Your task to perform on an android device: uninstall "Life360: Find Family & Friends" Image 0: 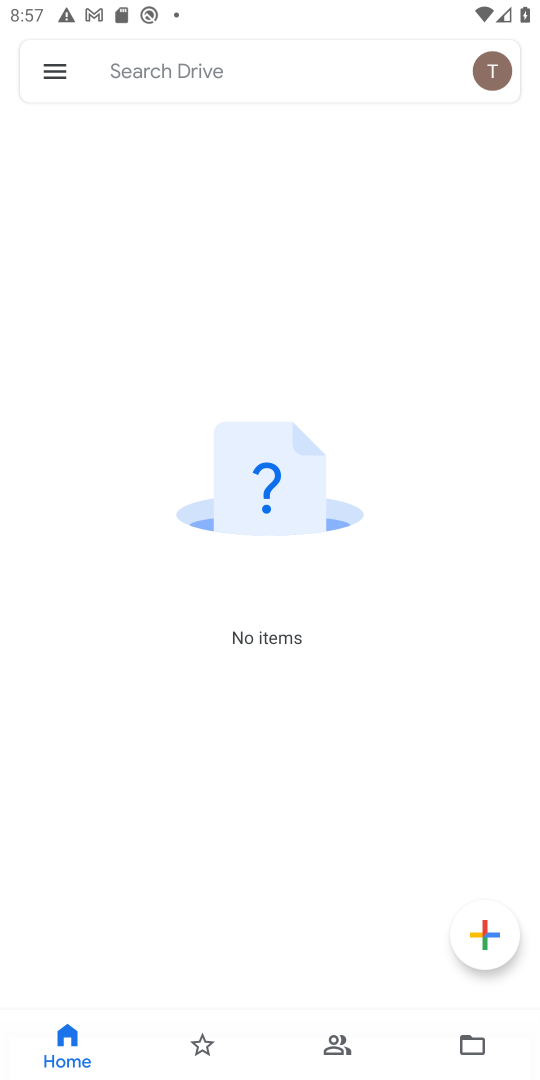
Step 0: press home button
Your task to perform on an android device: uninstall "Life360: Find Family & Friends" Image 1: 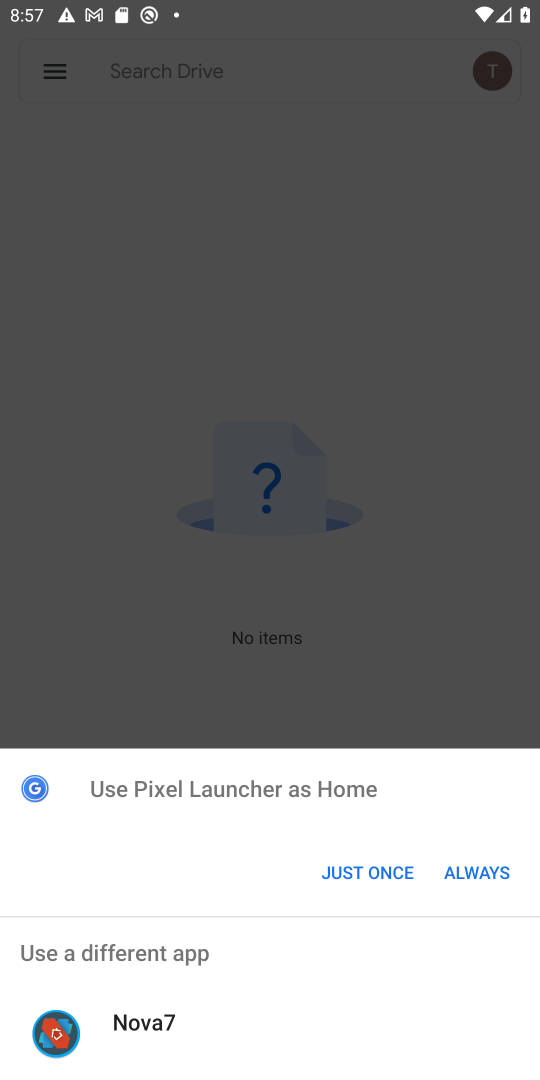
Step 1: click (488, 873)
Your task to perform on an android device: uninstall "Life360: Find Family & Friends" Image 2: 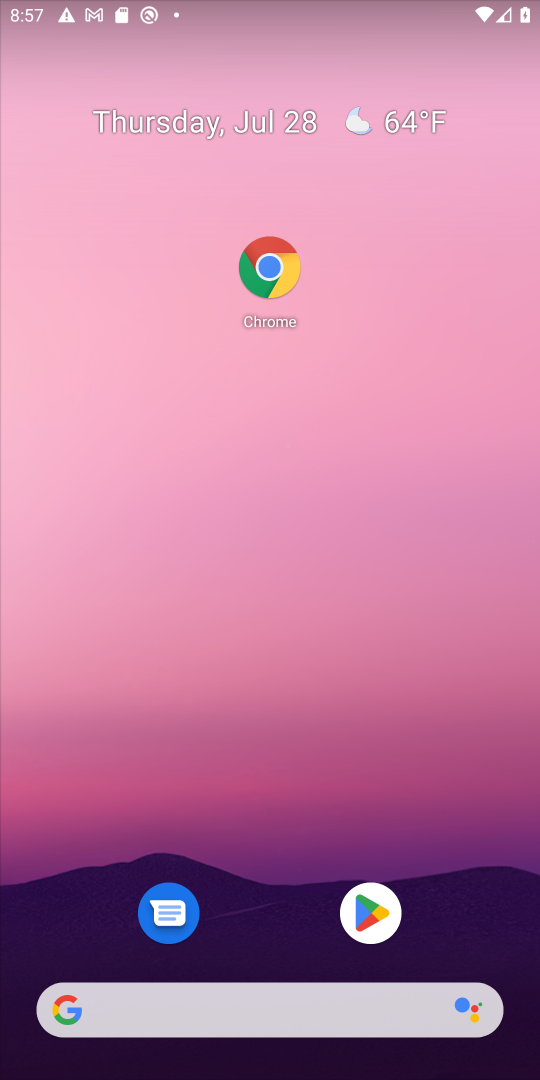
Step 2: click (372, 893)
Your task to perform on an android device: uninstall "Life360: Find Family & Friends" Image 3: 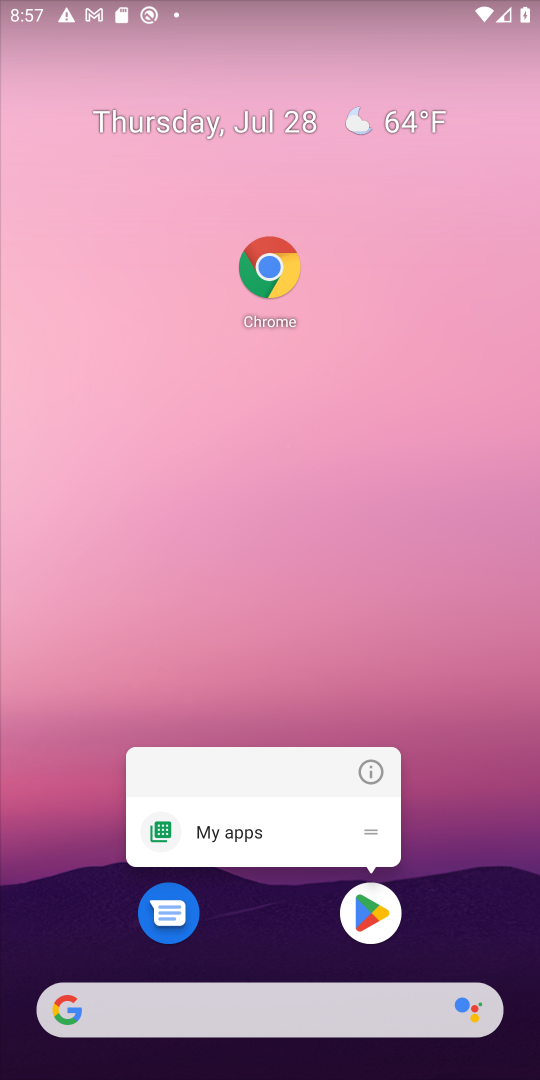
Step 3: click (388, 909)
Your task to perform on an android device: uninstall "Life360: Find Family & Friends" Image 4: 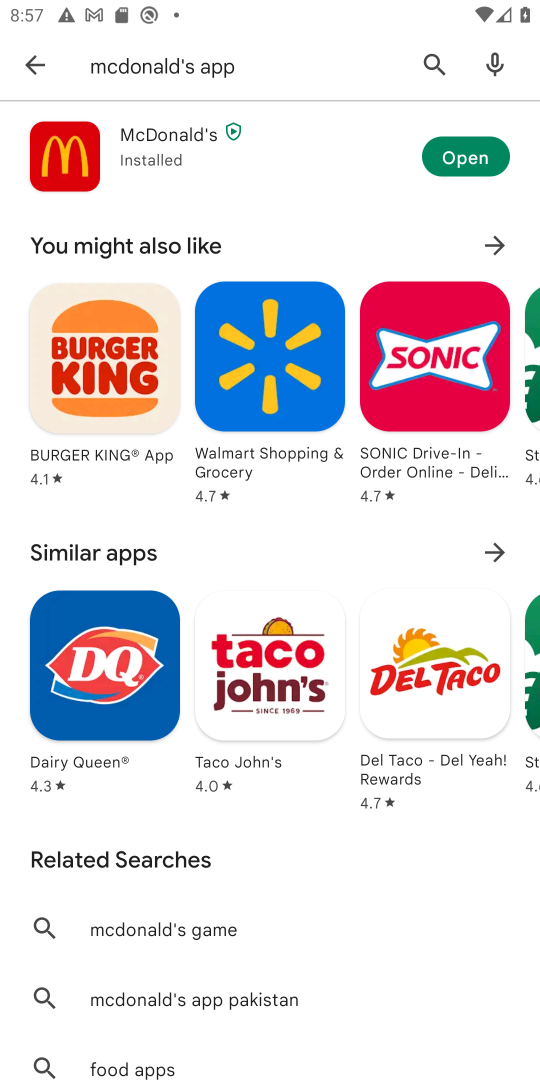
Step 4: click (432, 67)
Your task to perform on an android device: uninstall "Life360: Find Family & Friends" Image 5: 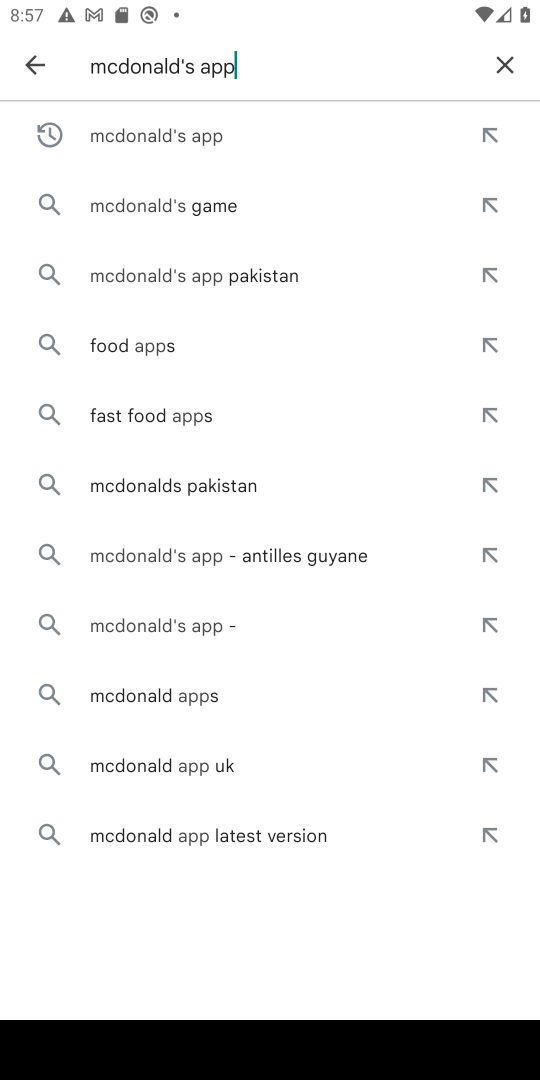
Step 5: click (506, 60)
Your task to perform on an android device: uninstall "Life360: Find Family & Friends" Image 6: 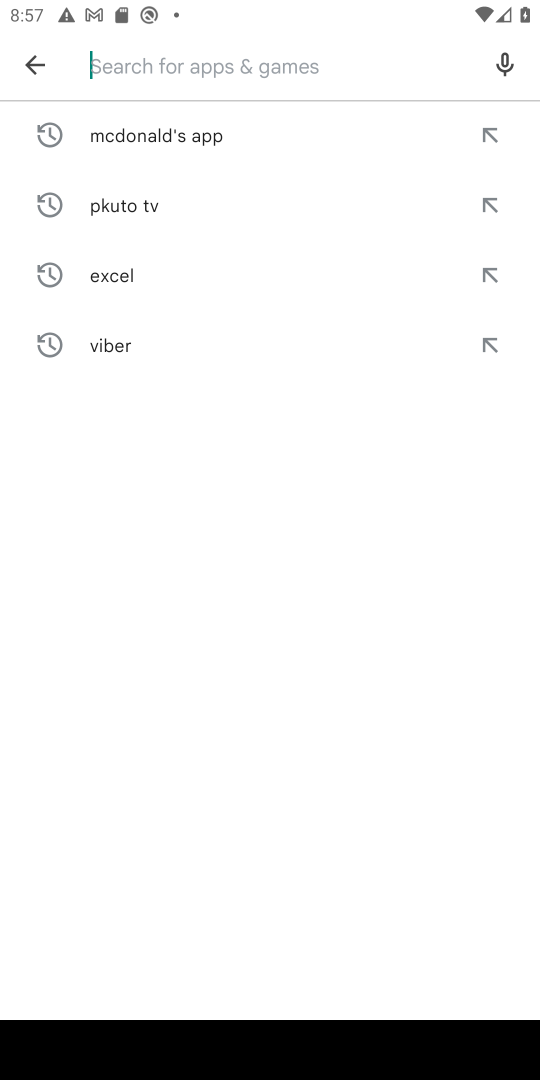
Step 6: type "life360"
Your task to perform on an android device: uninstall "Life360: Find Family & Friends" Image 7: 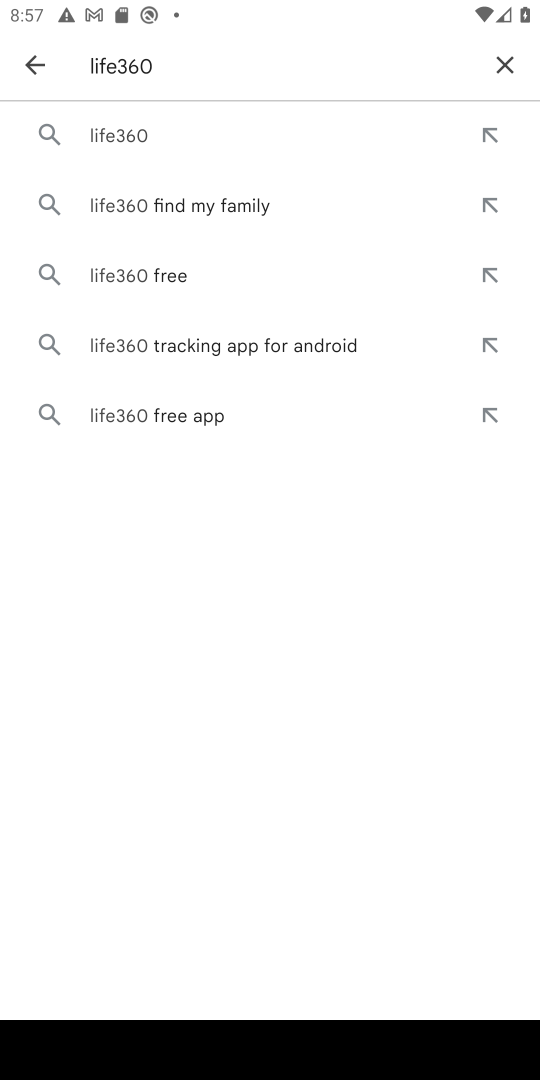
Step 7: click (249, 131)
Your task to perform on an android device: uninstall "Life360: Find Family & Friends" Image 8: 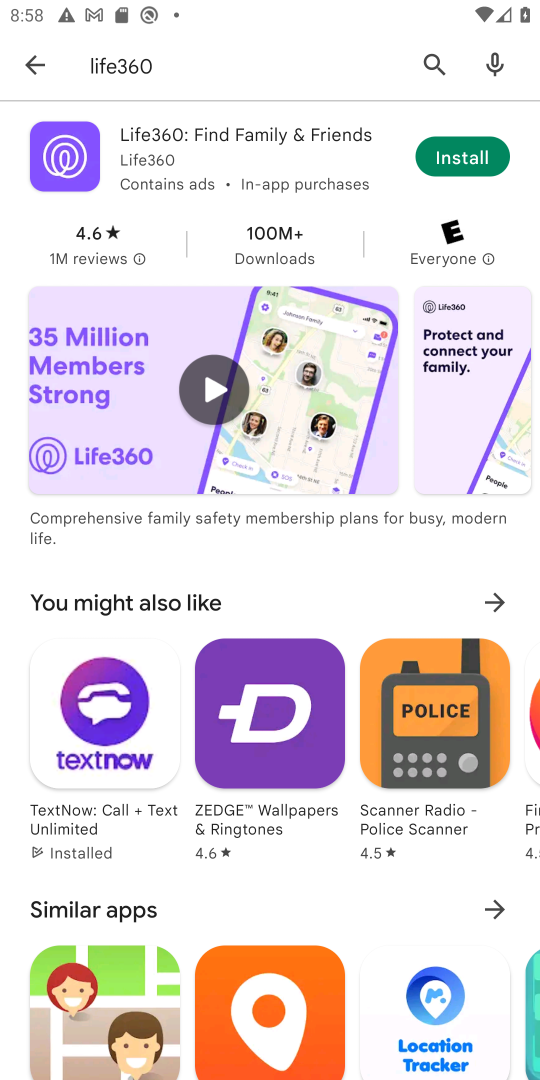
Step 8: task complete